Your task to perform on an android device: toggle pop-ups in chrome Image 0: 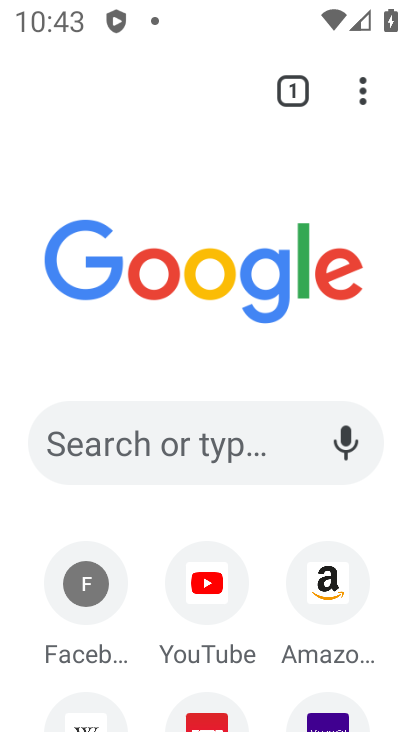
Step 0: click (367, 97)
Your task to perform on an android device: toggle pop-ups in chrome Image 1: 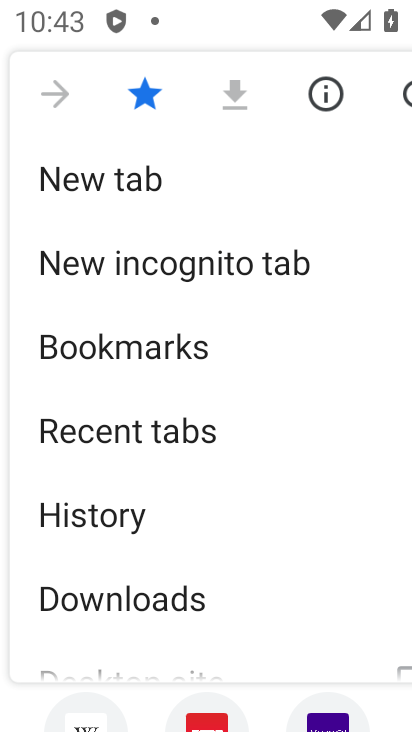
Step 1: drag from (134, 627) to (151, 209)
Your task to perform on an android device: toggle pop-ups in chrome Image 2: 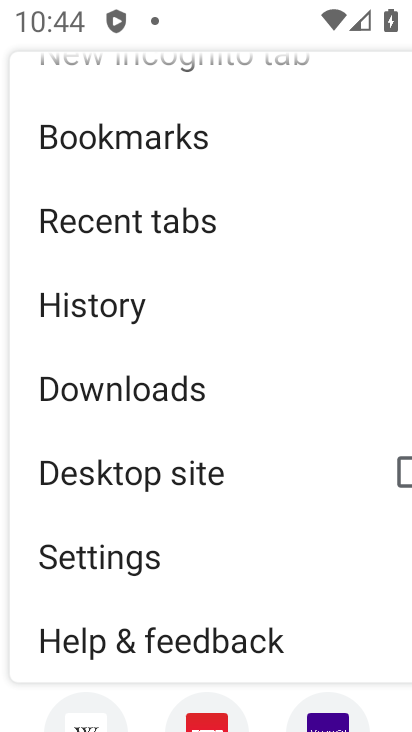
Step 2: click (102, 554)
Your task to perform on an android device: toggle pop-ups in chrome Image 3: 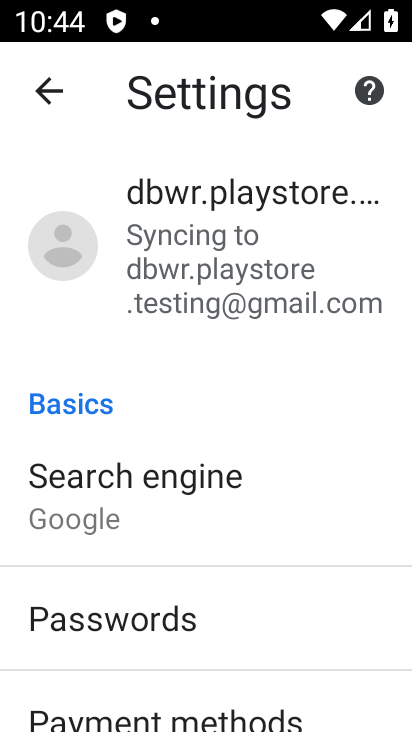
Step 3: drag from (275, 639) to (217, 253)
Your task to perform on an android device: toggle pop-ups in chrome Image 4: 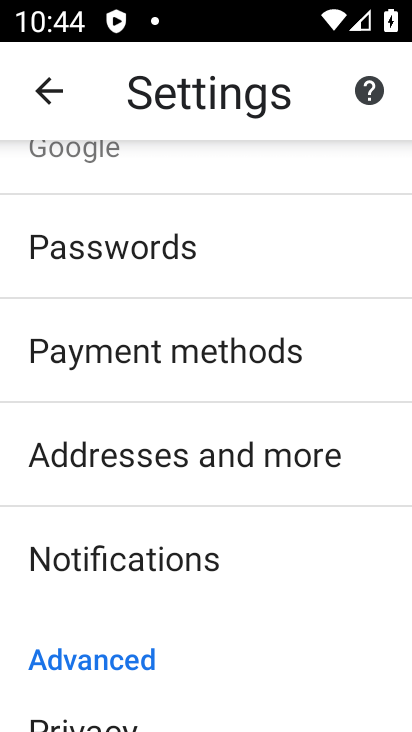
Step 4: drag from (272, 664) to (283, 238)
Your task to perform on an android device: toggle pop-ups in chrome Image 5: 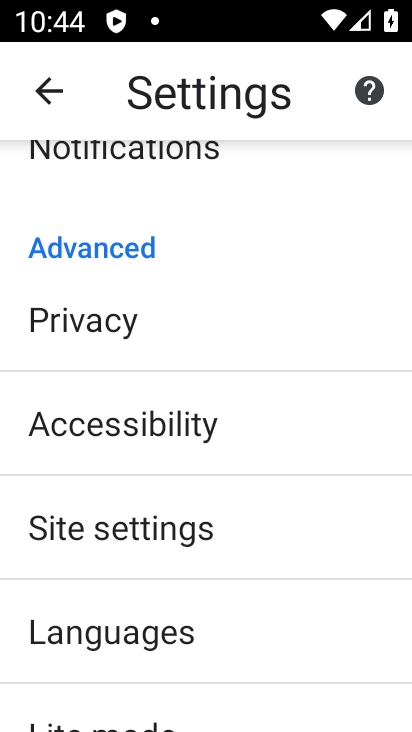
Step 5: drag from (247, 704) to (274, 358)
Your task to perform on an android device: toggle pop-ups in chrome Image 6: 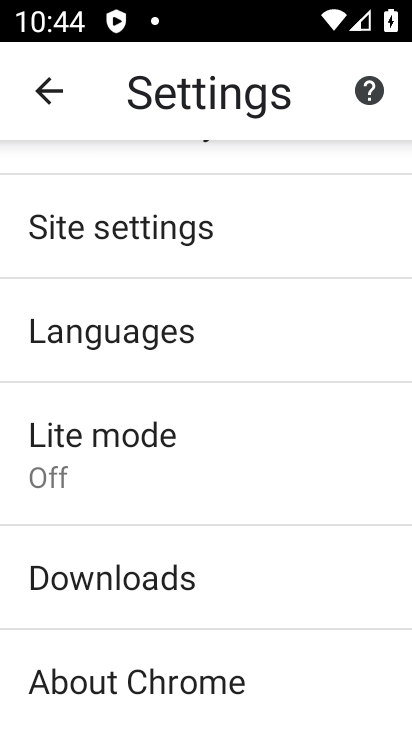
Step 6: click (160, 230)
Your task to perform on an android device: toggle pop-ups in chrome Image 7: 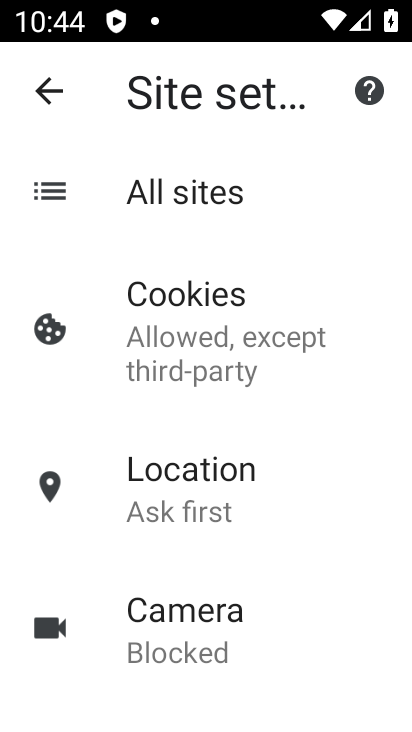
Step 7: drag from (256, 684) to (310, 171)
Your task to perform on an android device: toggle pop-ups in chrome Image 8: 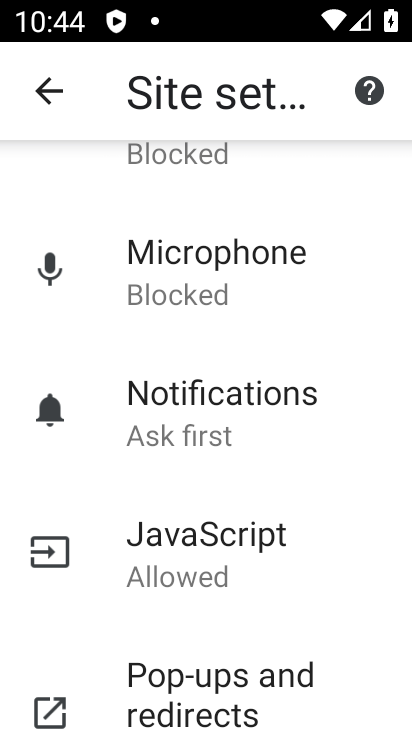
Step 8: click (265, 687)
Your task to perform on an android device: toggle pop-ups in chrome Image 9: 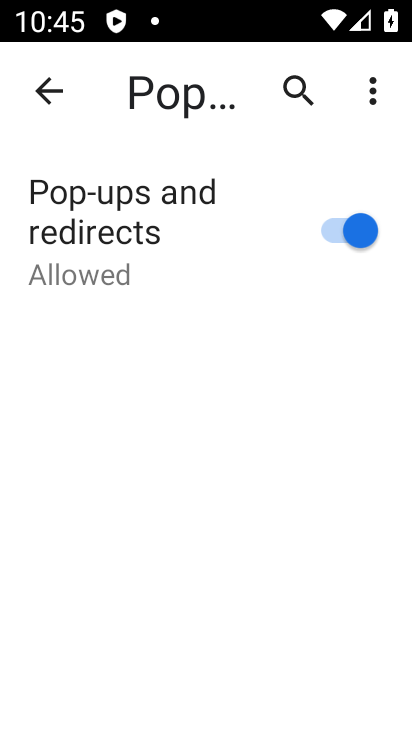
Step 9: click (358, 225)
Your task to perform on an android device: toggle pop-ups in chrome Image 10: 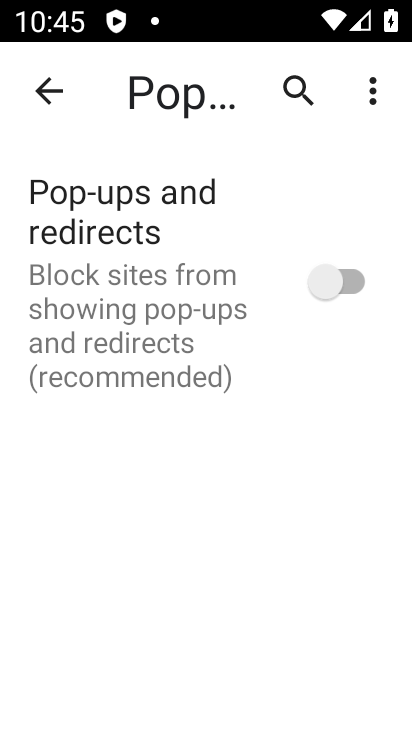
Step 10: task complete